Your task to perform on an android device: turn off location history Image 0: 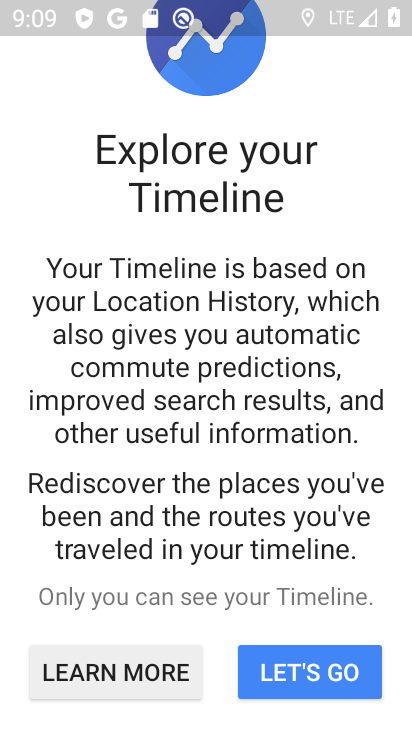
Step 0: press back button
Your task to perform on an android device: turn off location history Image 1: 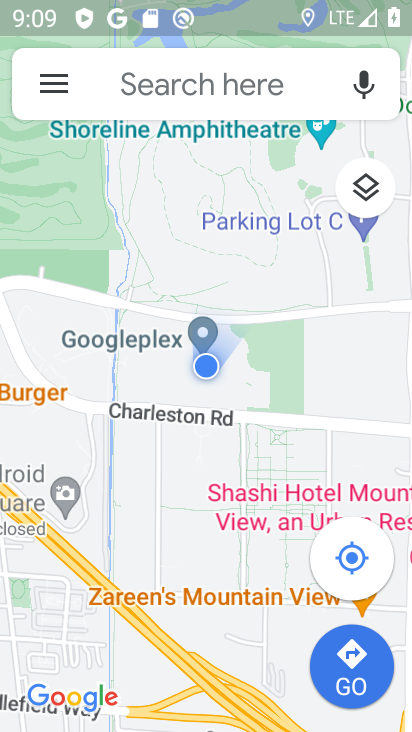
Step 1: press back button
Your task to perform on an android device: turn off location history Image 2: 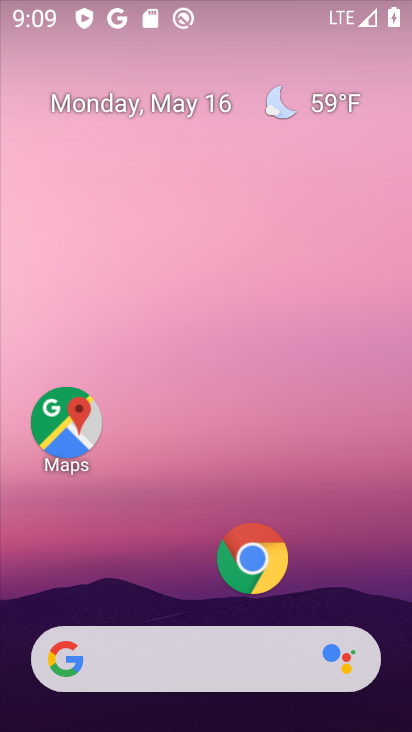
Step 2: drag from (77, 543) to (276, 21)
Your task to perform on an android device: turn off location history Image 3: 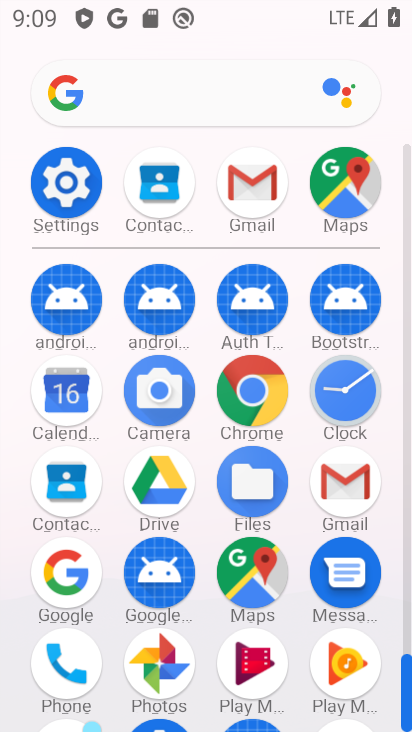
Step 3: click (87, 209)
Your task to perform on an android device: turn off location history Image 4: 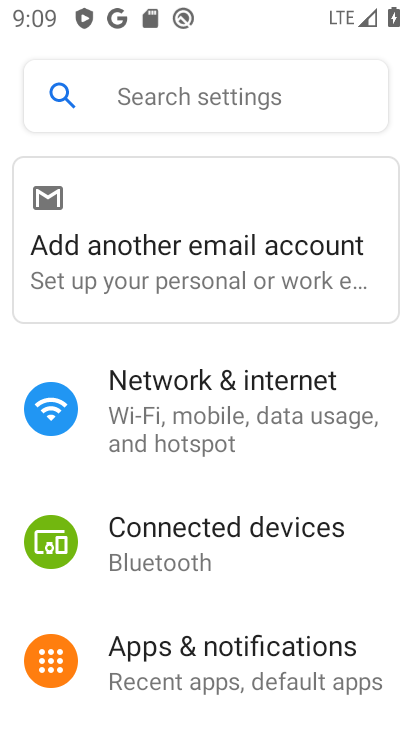
Step 4: drag from (180, 612) to (299, 76)
Your task to perform on an android device: turn off location history Image 5: 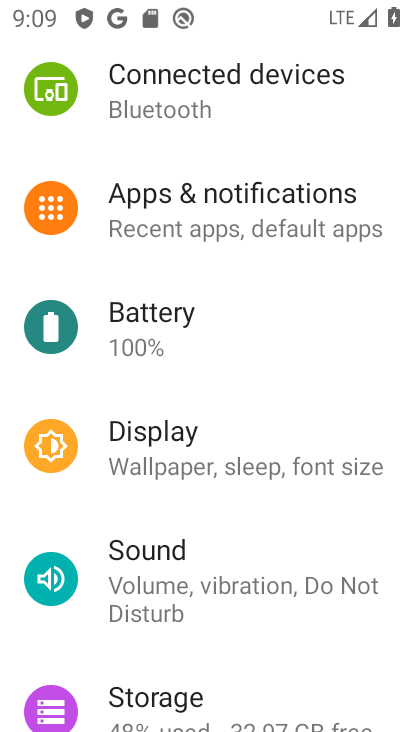
Step 5: drag from (166, 609) to (313, 48)
Your task to perform on an android device: turn off location history Image 6: 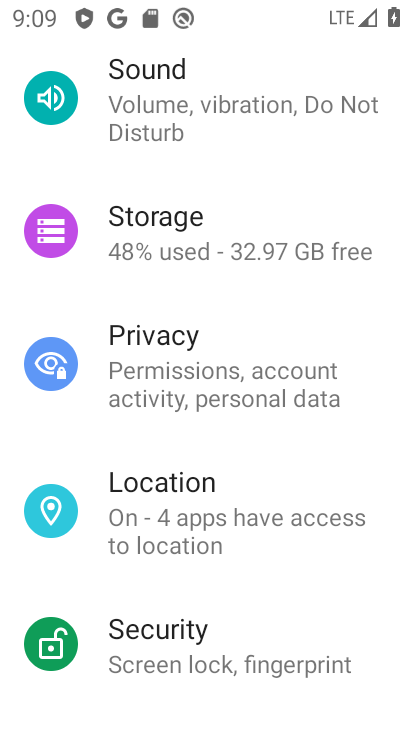
Step 6: click (173, 545)
Your task to perform on an android device: turn off location history Image 7: 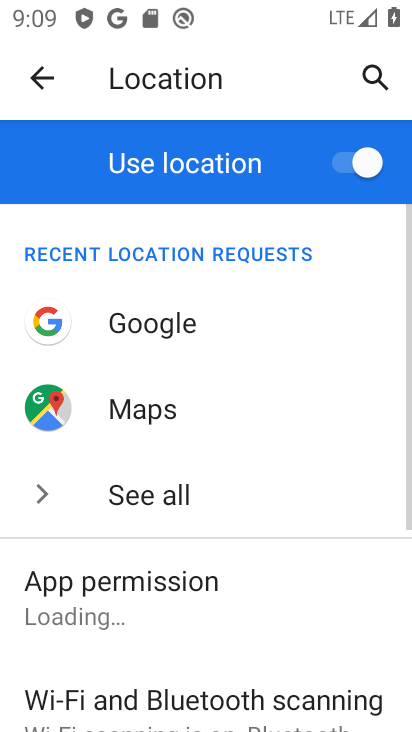
Step 7: drag from (168, 558) to (293, 112)
Your task to perform on an android device: turn off location history Image 8: 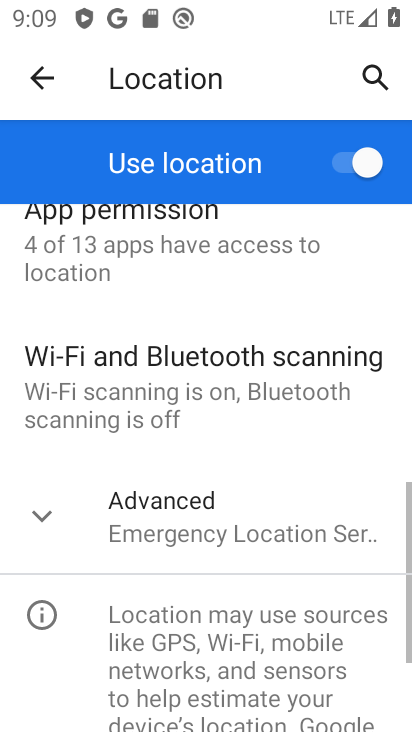
Step 8: click (143, 501)
Your task to perform on an android device: turn off location history Image 9: 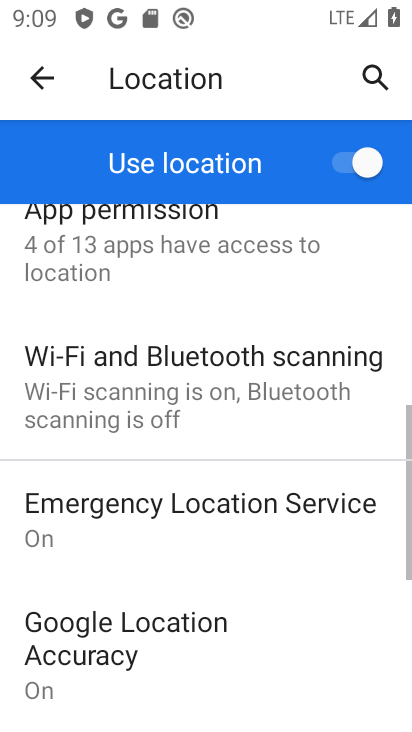
Step 9: drag from (198, 660) to (285, 288)
Your task to perform on an android device: turn off location history Image 10: 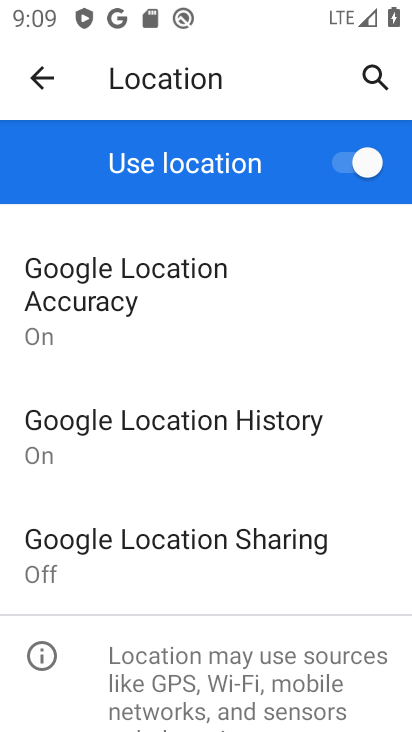
Step 10: click (189, 429)
Your task to perform on an android device: turn off location history Image 11: 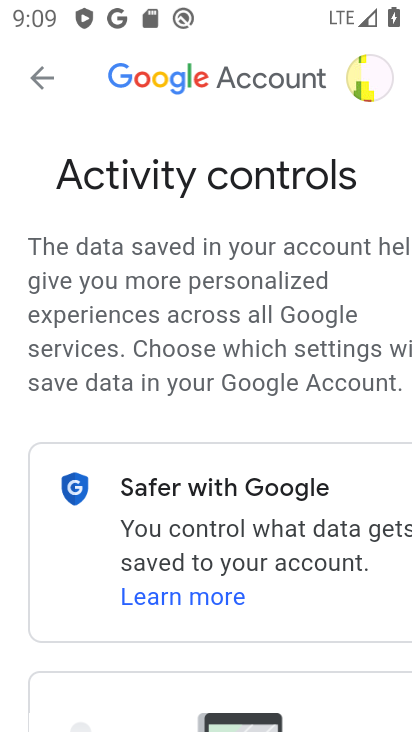
Step 11: drag from (204, 589) to (222, 103)
Your task to perform on an android device: turn off location history Image 12: 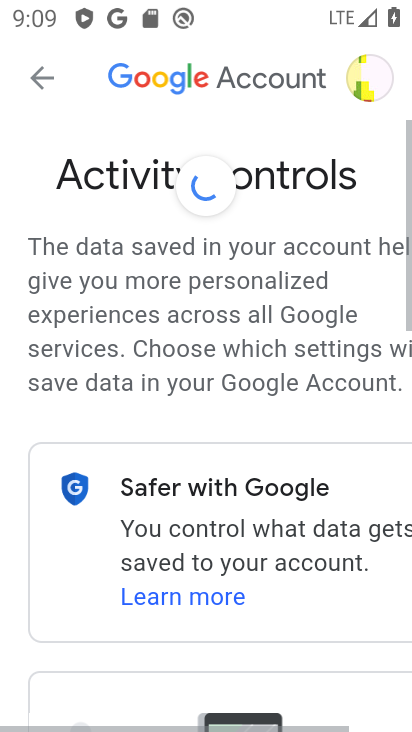
Step 12: drag from (240, 616) to (214, 75)
Your task to perform on an android device: turn off location history Image 13: 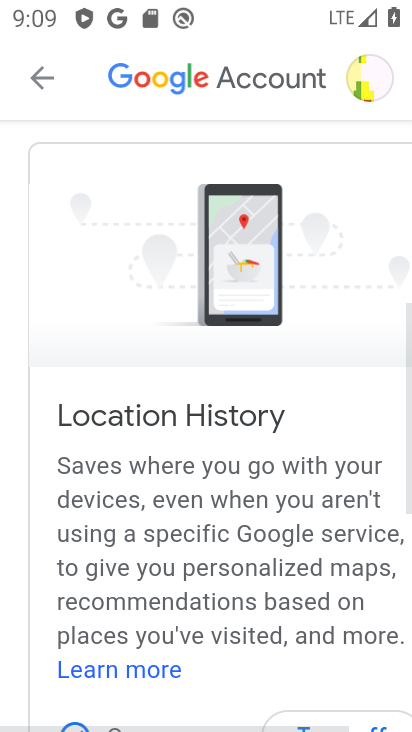
Step 13: drag from (299, 563) to (128, 168)
Your task to perform on an android device: turn off location history Image 14: 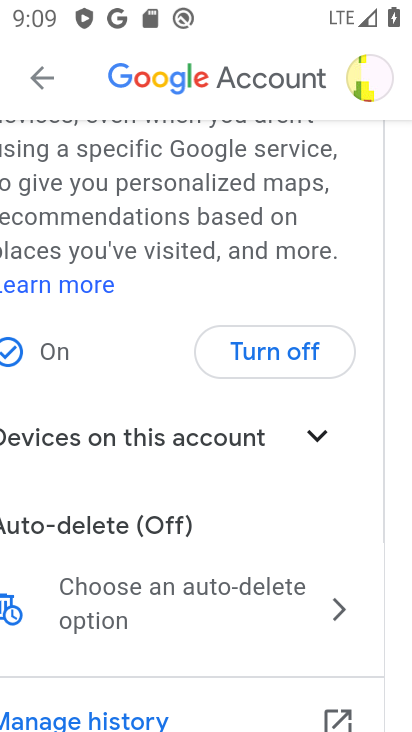
Step 14: click (268, 362)
Your task to perform on an android device: turn off location history Image 15: 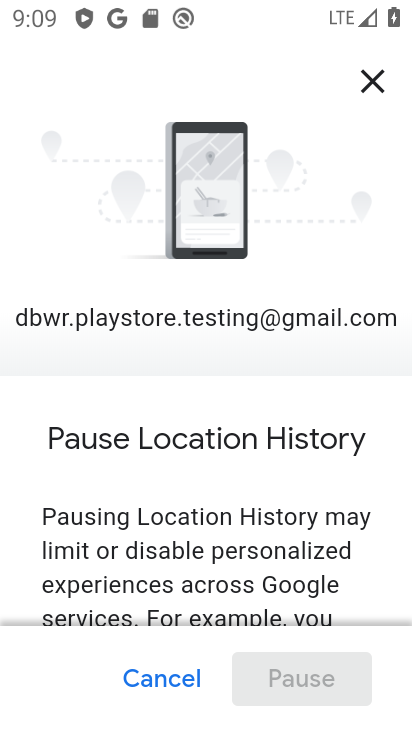
Step 15: drag from (240, 600) to (282, 15)
Your task to perform on an android device: turn off location history Image 16: 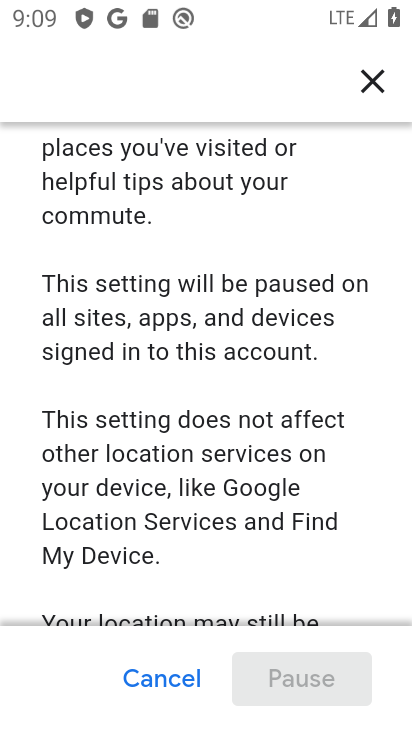
Step 16: drag from (250, 489) to (299, 7)
Your task to perform on an android device: turn off location history Image 17: 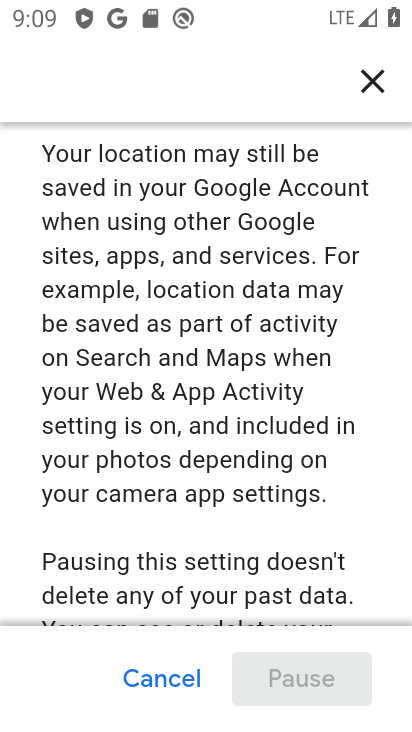
Step 17: drag from (181, 515) to (267, 7)
Your task to perform on an android device: turn off location history Image 18: 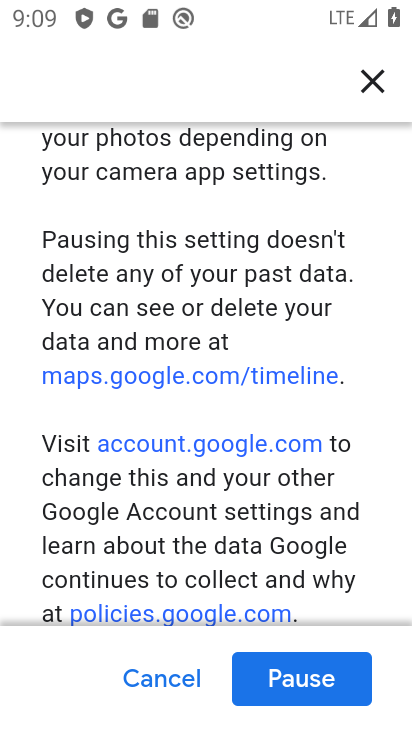
Step 18: click (287, 682)
Your task to perform on an android device: turn off location history Image 19: 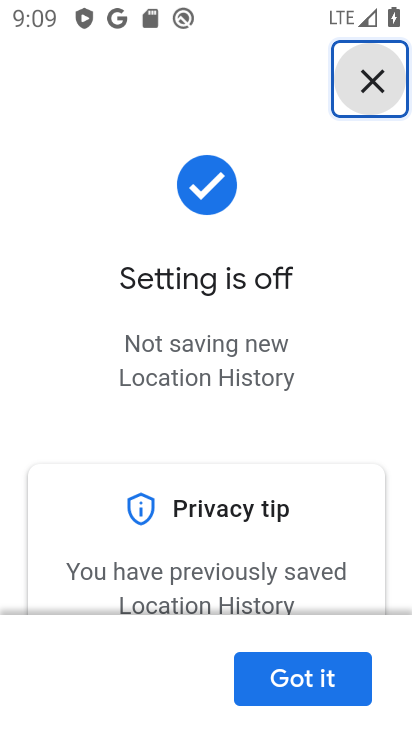
Step 19: click (321, 692)
Your task to perform on an android device: turn off location history Image 20: 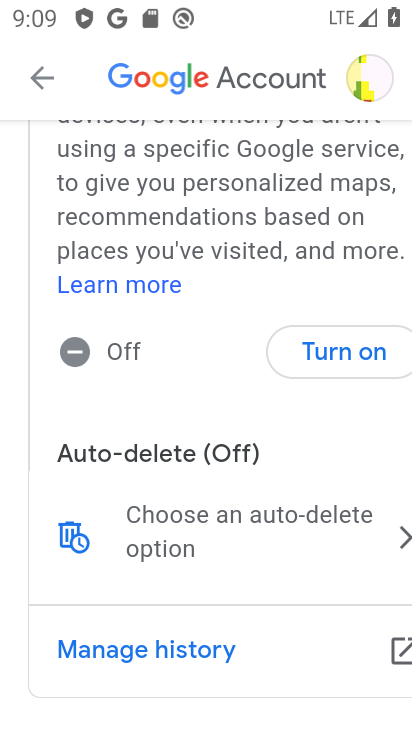
Step 20: task complete